Your task to perform on an android device: open app "Google Calendar" Image 0: 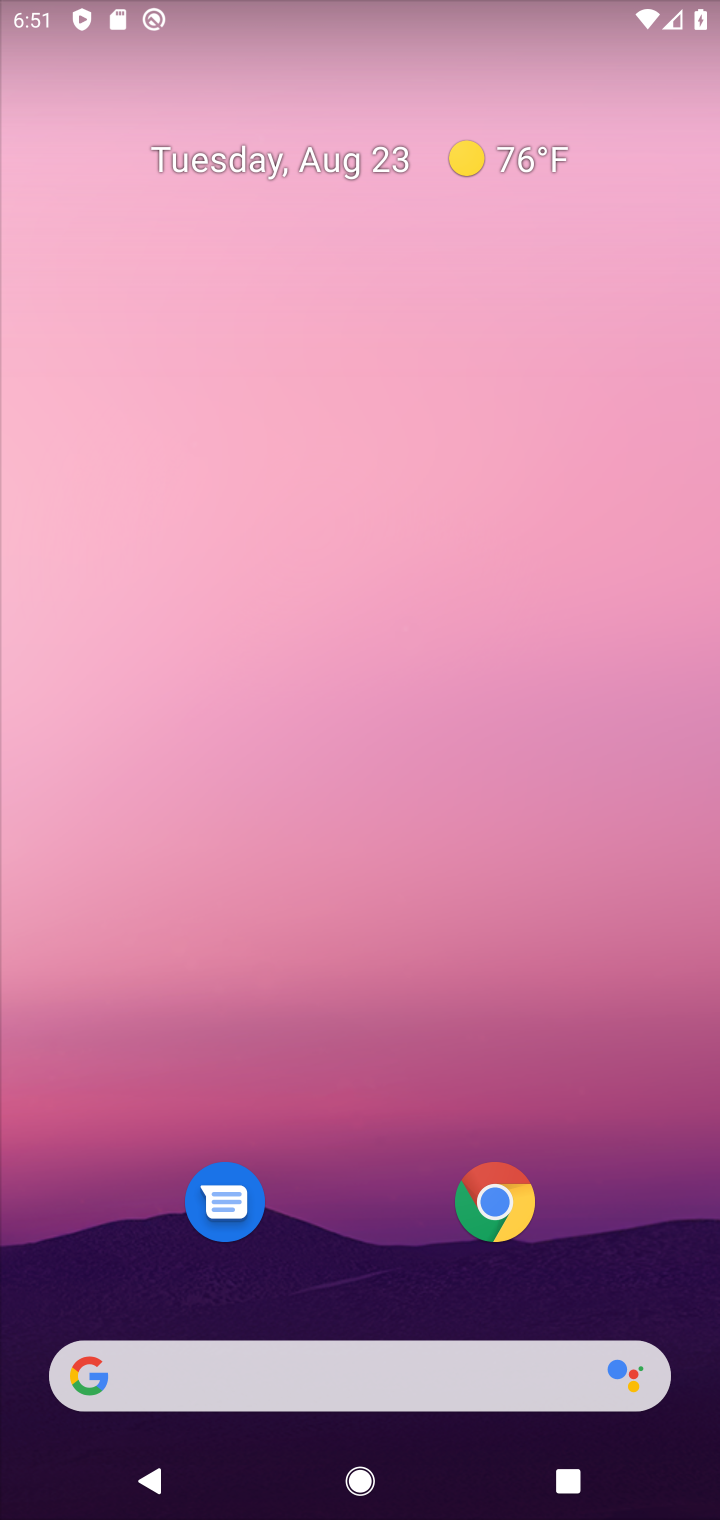
Step 0: drag from (386, 1167) to (405, 281)
Your task to perform on an android device: open app "Google Calendar" Image 1: 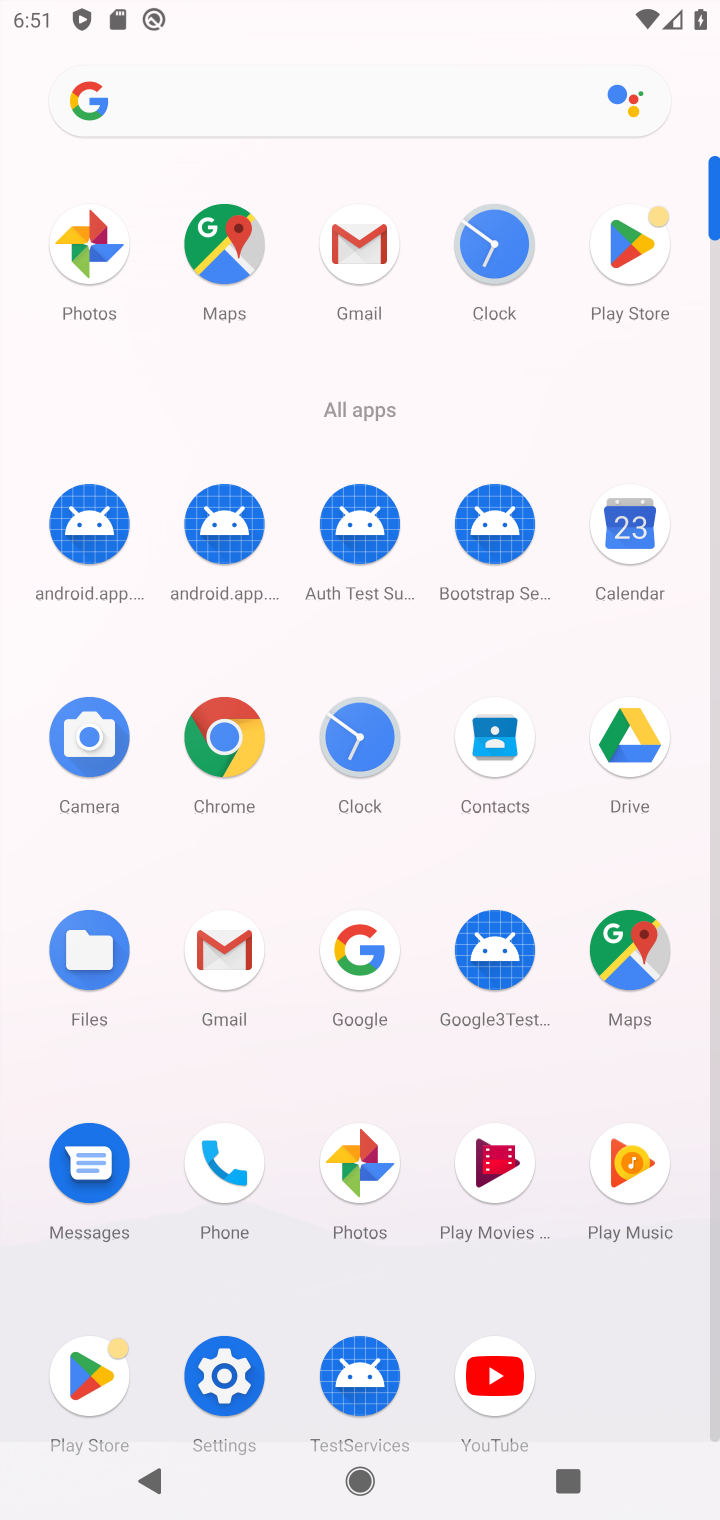
Step 1: click (616, 224)
Your task to perform on an android device: open app "Google Calendar" Image 2: 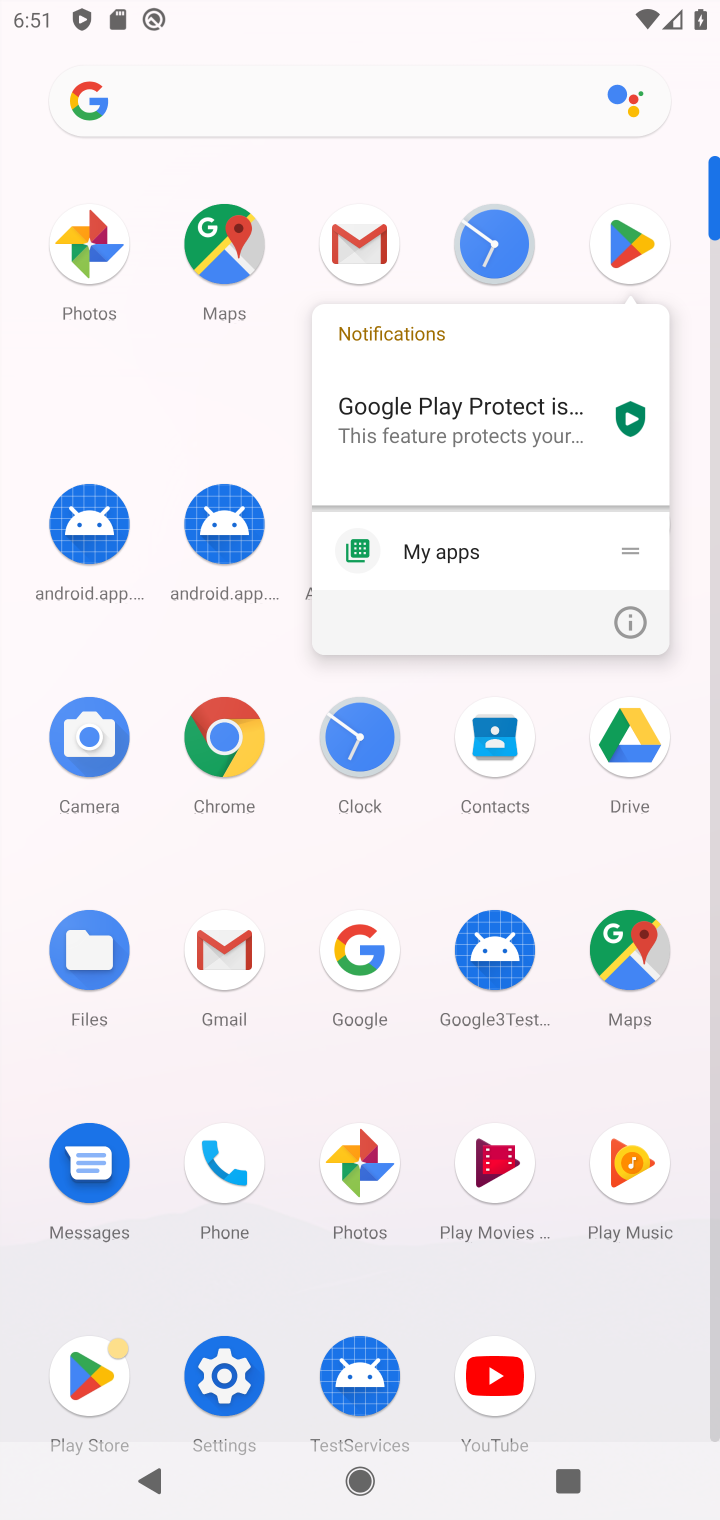
Step 2: click (616, 235)
Your task to perform on an android device: open app "Google Calendar" Image 3: 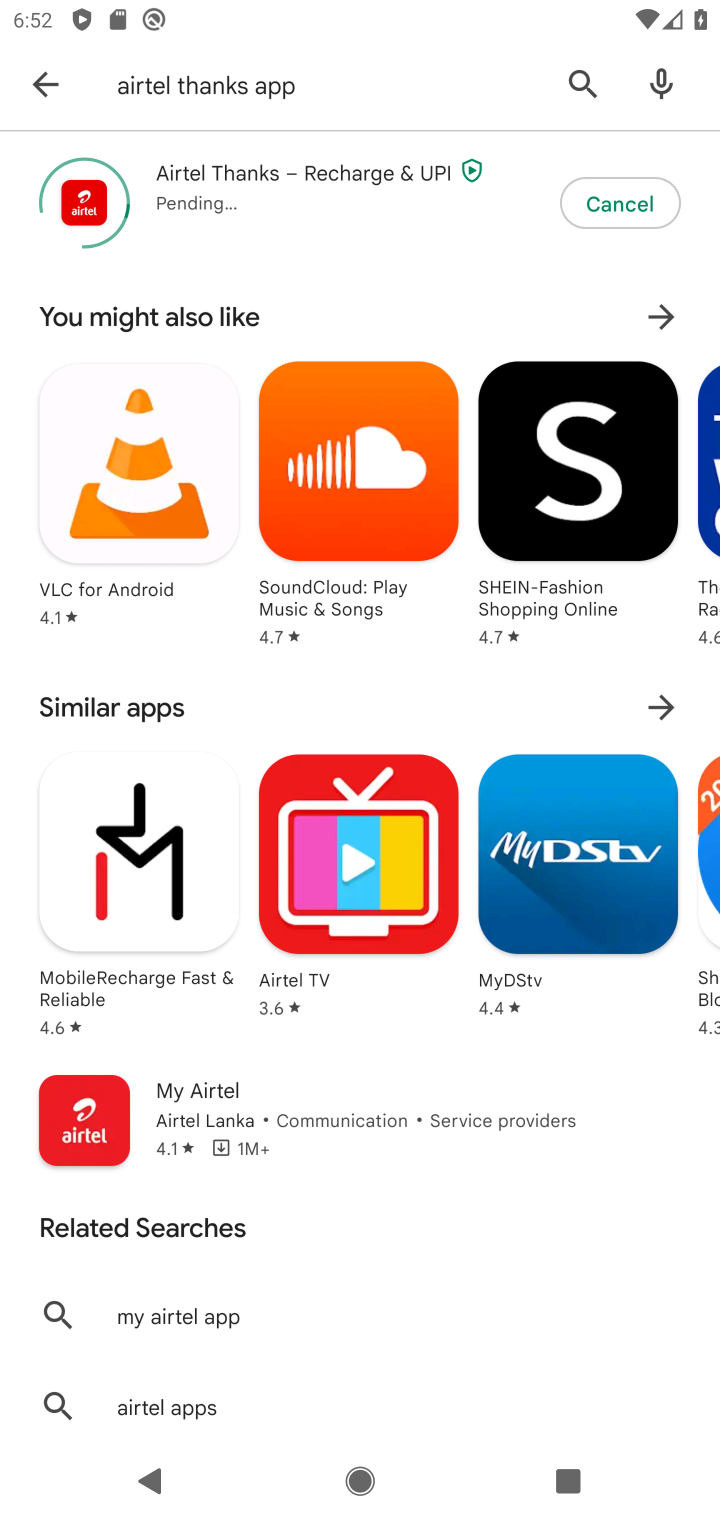
Step 3: click (616, 235)
Your task to perform on an android device: open app "Google Calendar" Image 4: 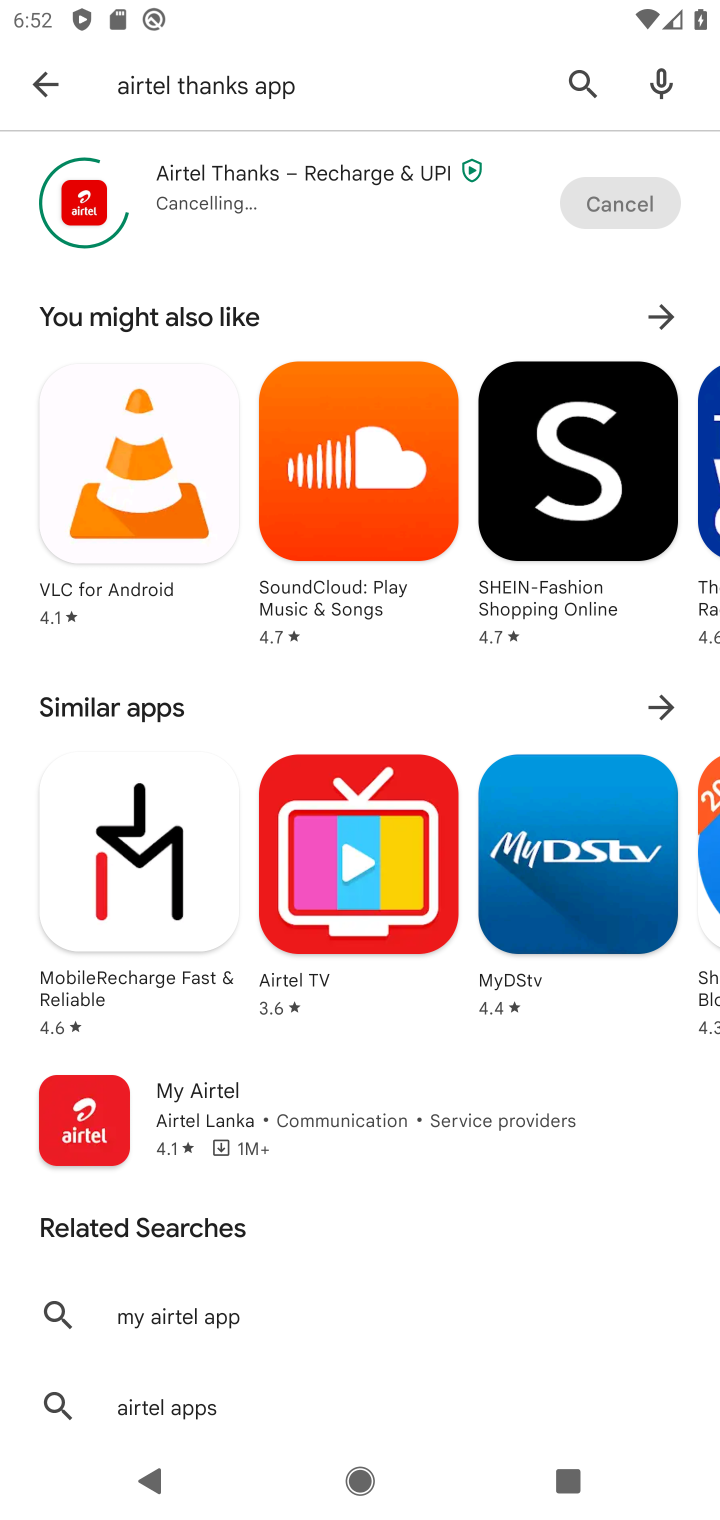
Step 4: click (50, 71)
Your task to perform on an android device: open app "Google Calendar" Image 5: 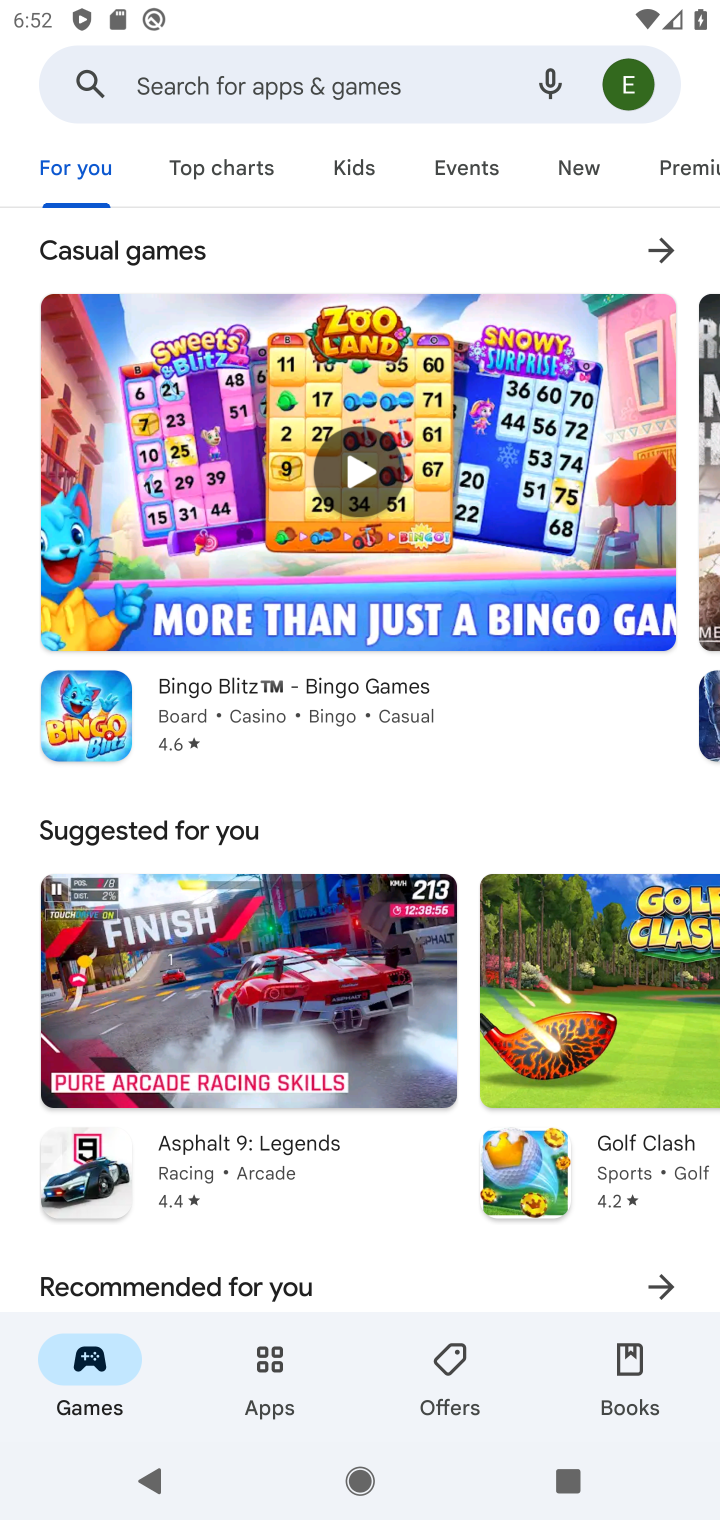
Step 5: click (268, 73)
Your task to perform on an android device: open app "Google Calendar" Image 6: 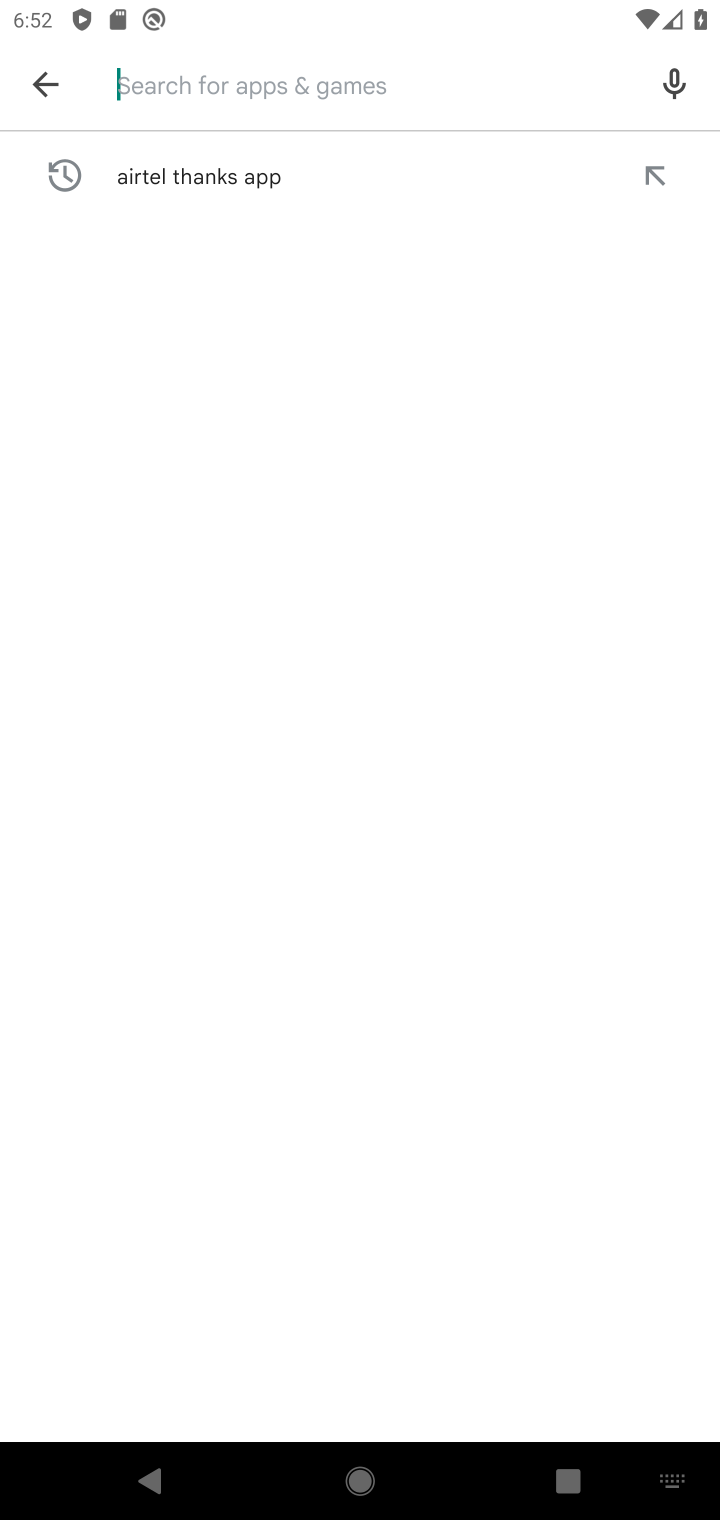
Step 6: type "Google Calendar "
Your task to perform on an android device: open app "Google Calendar" Image 7: 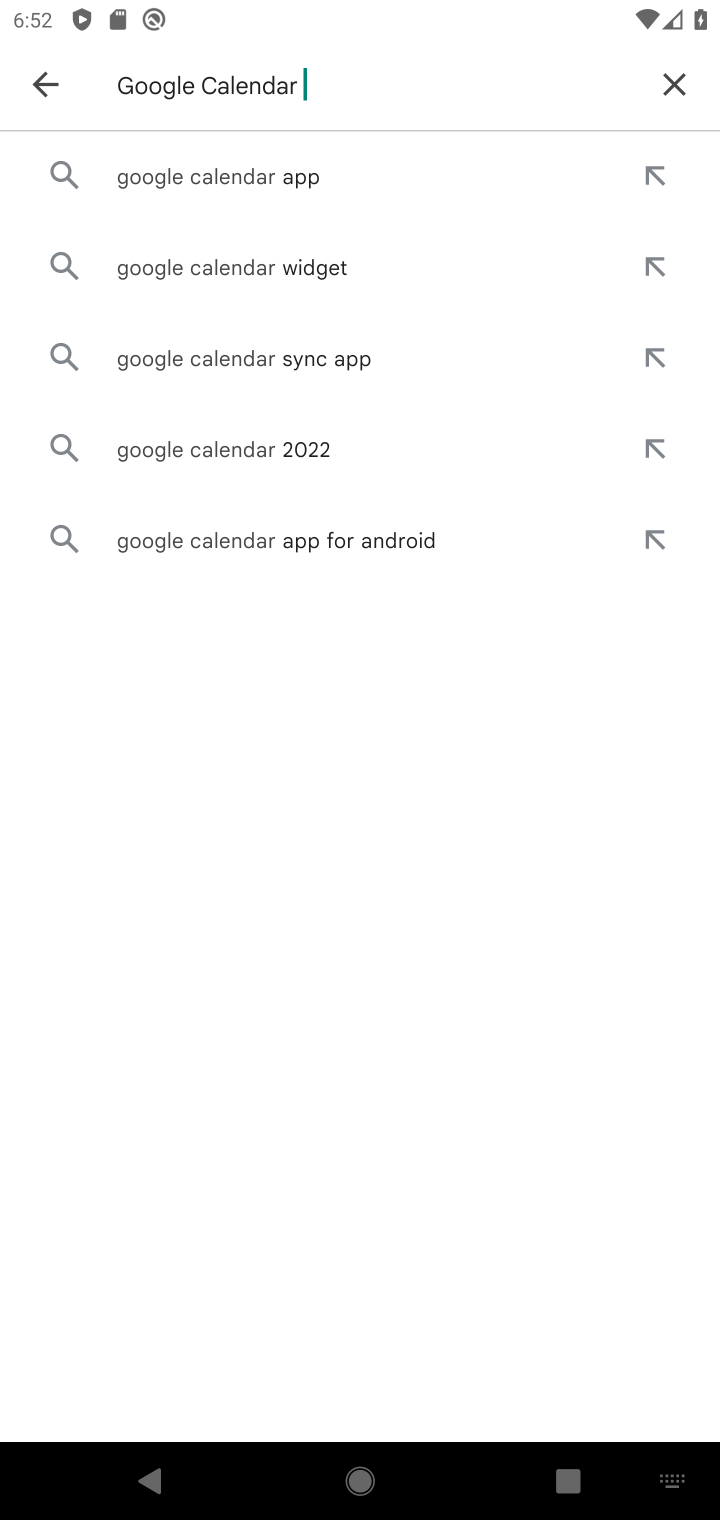
Step 7: click (190, 165)
Your task to perform on an android device: open app "Google Calendar" Image 8: 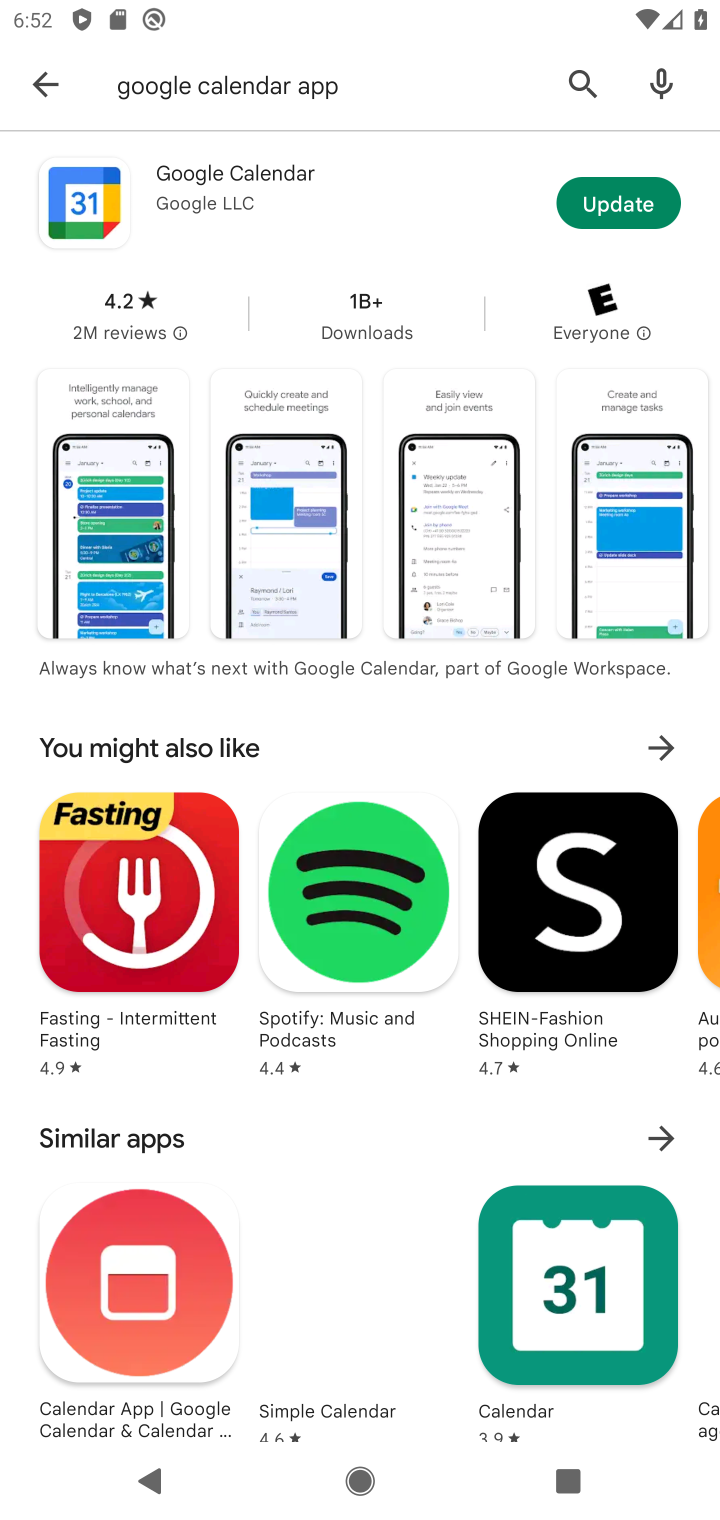
Step 8: click (637, 191)
Your task to perform on an android device: open app "Google Calendar" Image 9: 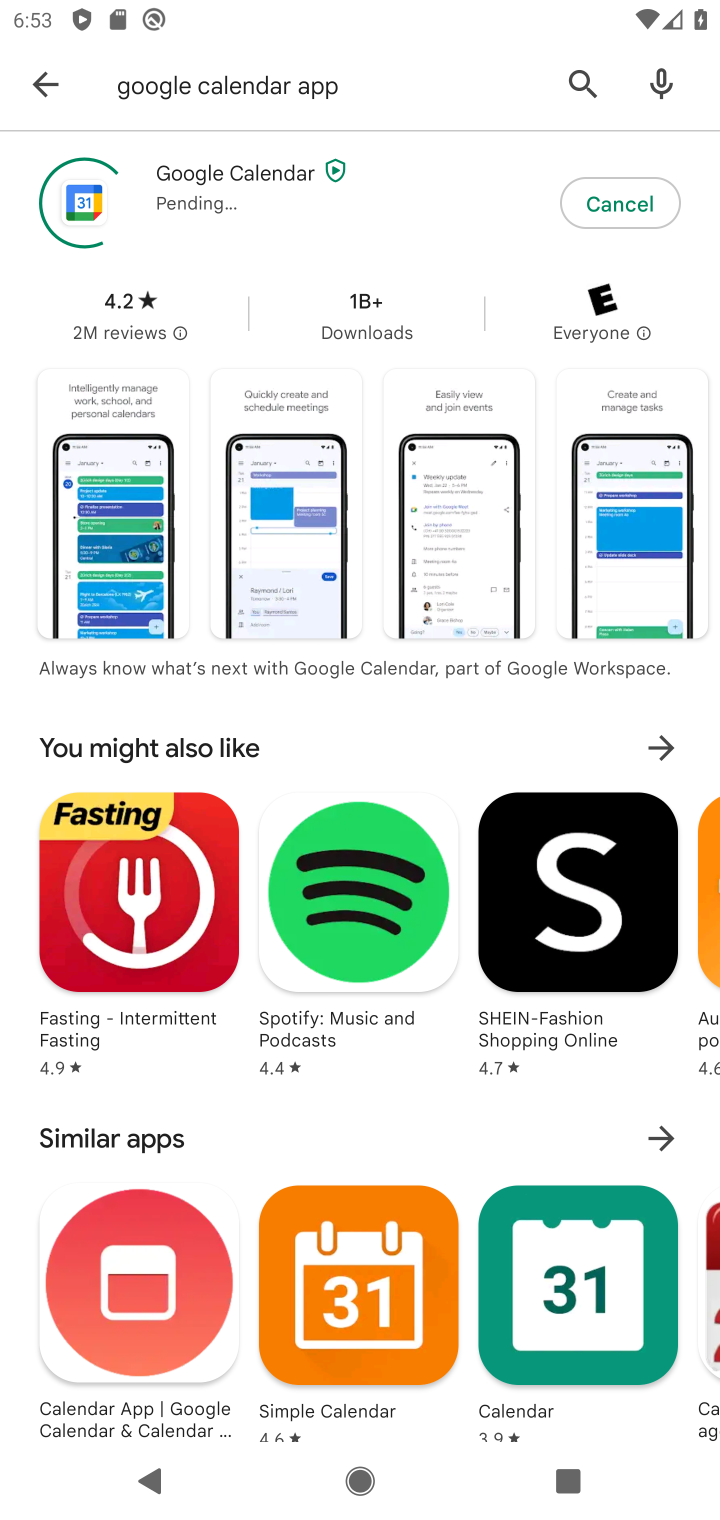
Step 9: task complete